Your task to perform on an android device: Open display settings Image 0: 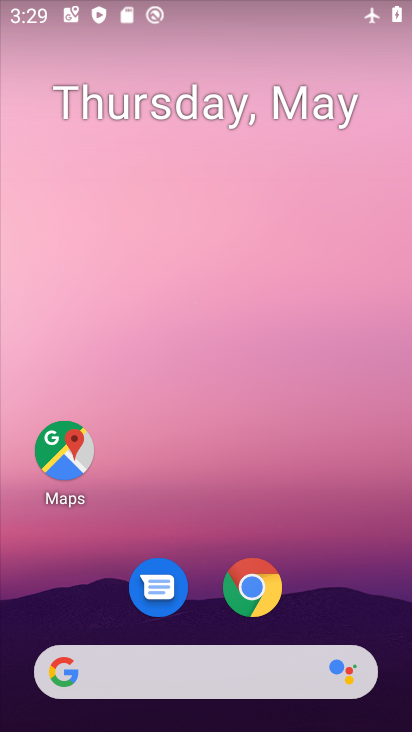
Step 0: drag from (213, 647) to (180, 202)
Your task to perform on an android device: Open display settings Image 1: 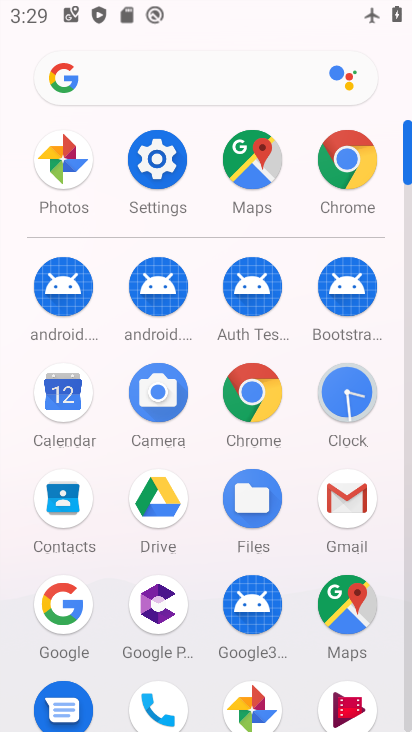
Step 1: click (148, 180)
Your task to perform on an android device: Open display settings Image 2: 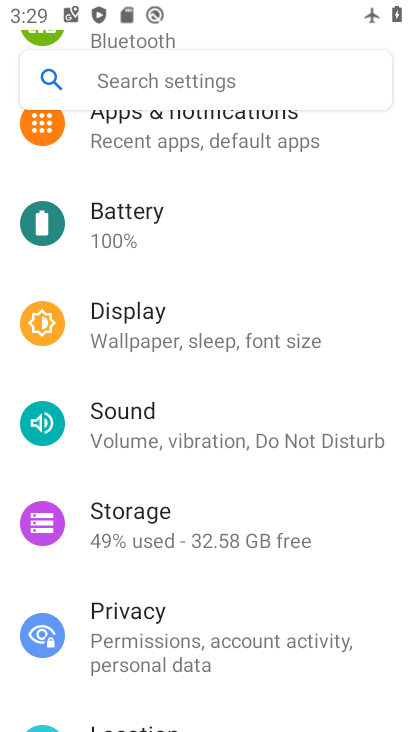
Step 2: click (185, 337)
Your task to perform on an android device: Open display settings Image 3: 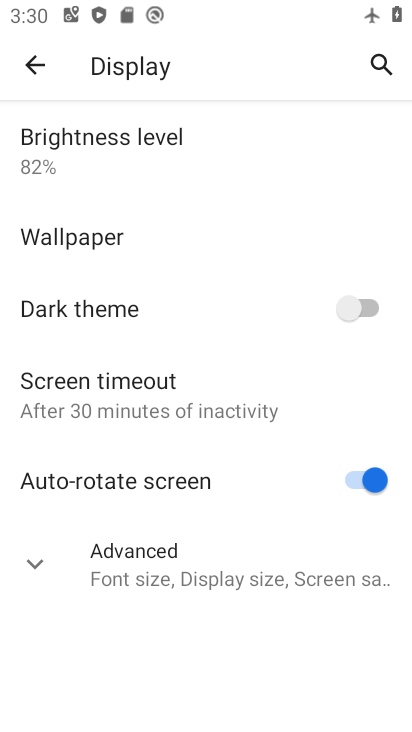
Step 3: task complete